Your task to perform on an android device: What is the recent news? Image 0: 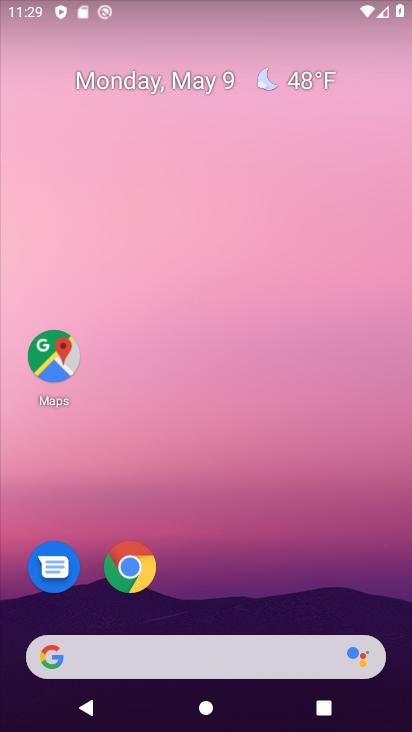
Step 0: drag from (7, 275) to (369, 225)
Your task to perform on an android device: What is the recent news? Image 1: 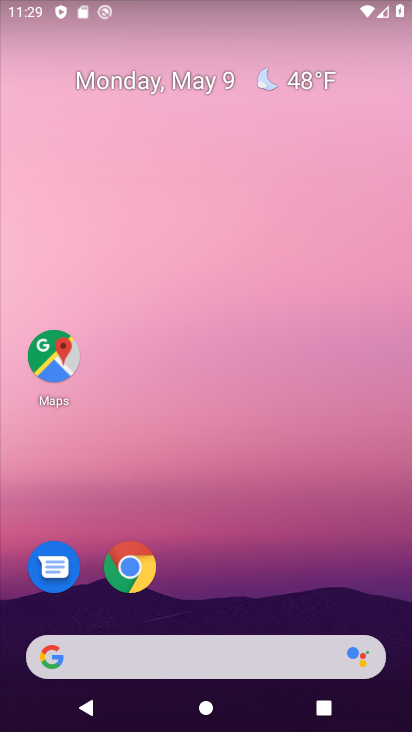
Step 1: task complete